Your task to perform on an android device: check storage Image 0: 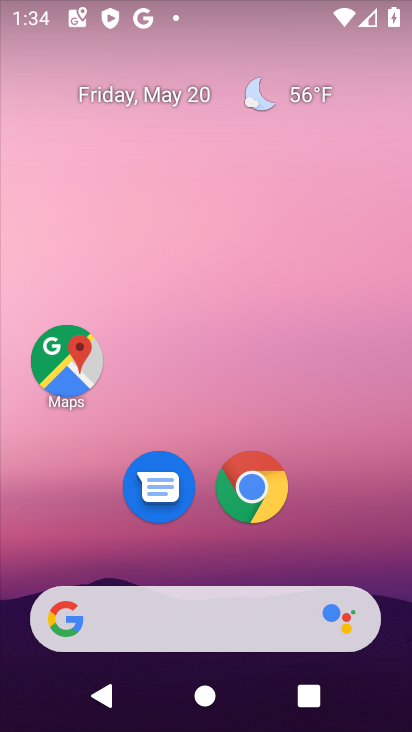
Step 0: drag from (205, 562) to (252, 67)
Your task to perform on an android device: check storage Image 1: 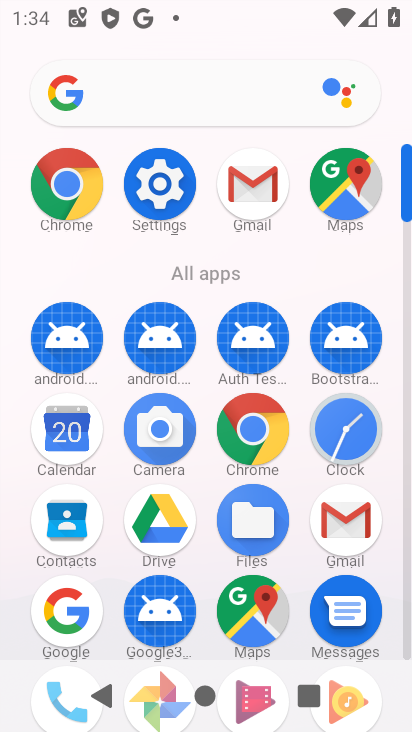
Step 1: click (157, 178)
Your task to perform on an android device: check storage Image 2: 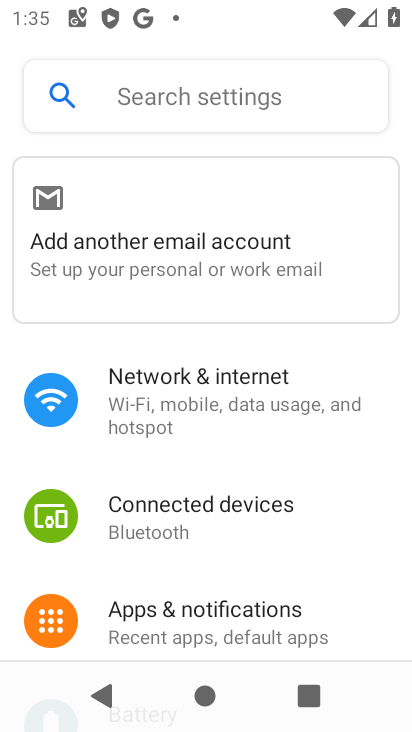
Step 2: drag from (250, 623) to (270, 121)
Your task to perform on an android device: check storage Image 3: 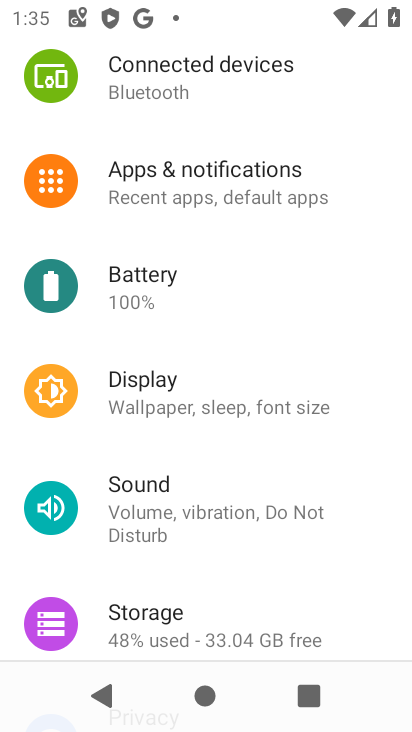
Step 3: click (194, 615)
Your task to perform on an android device: check storage Image 4: 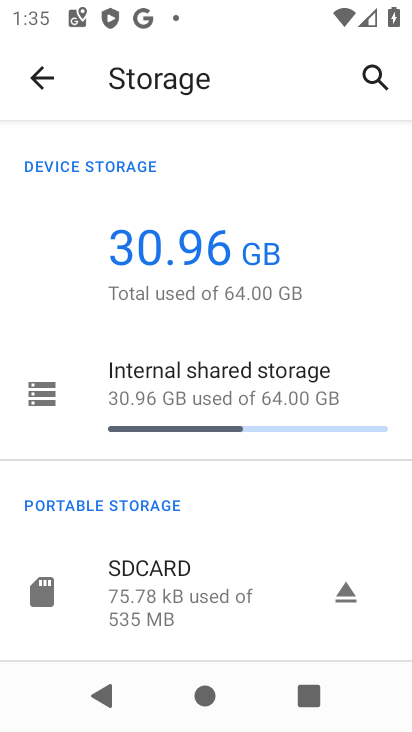
Step 4: task complete